Your task to perform on an android device: turn on translation in the chrome app Image 0: 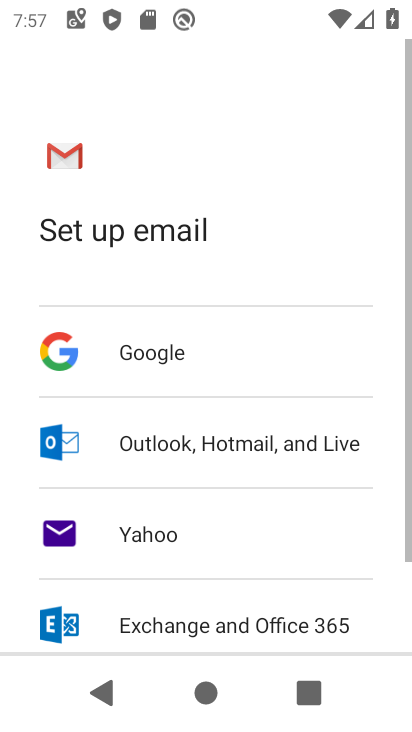
Step 0: press home button
Your task to perform on an android device: turn on translation in the chrome app Image 1: 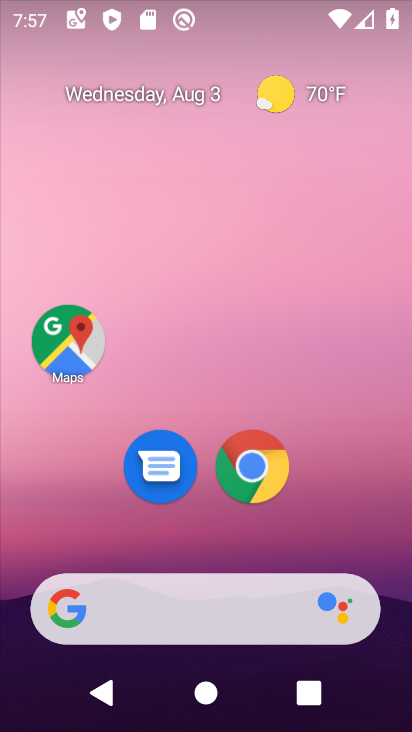
Step 1: drag from (336, 485) to (339, 37)
Your task to perform on an android device: turn on translation in the chrome app Image 2: 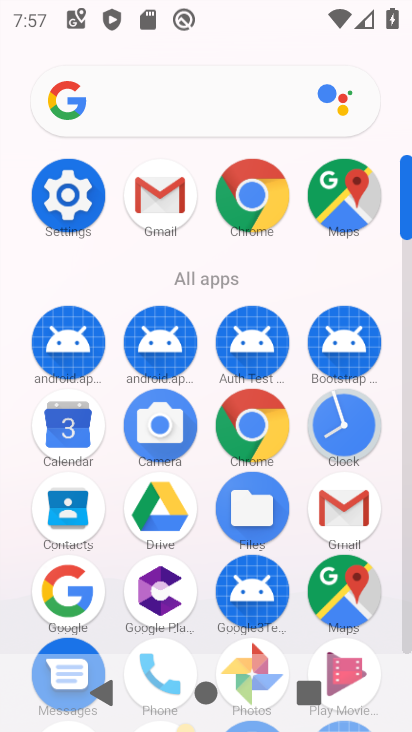
Step 2: click (260, 434)
Your task to perform on an android device: turn on translation in the chrome app Image 3: 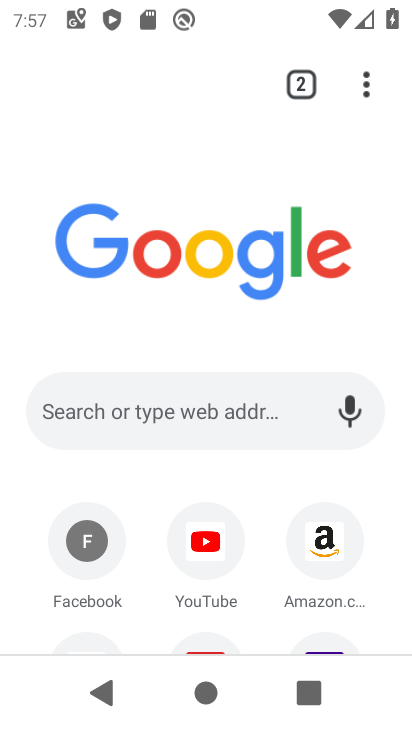
Step 3: drag from (365, 74) to (253, 530)
Your task to perform on an android device: turn on translation in the chrome app Image 4: 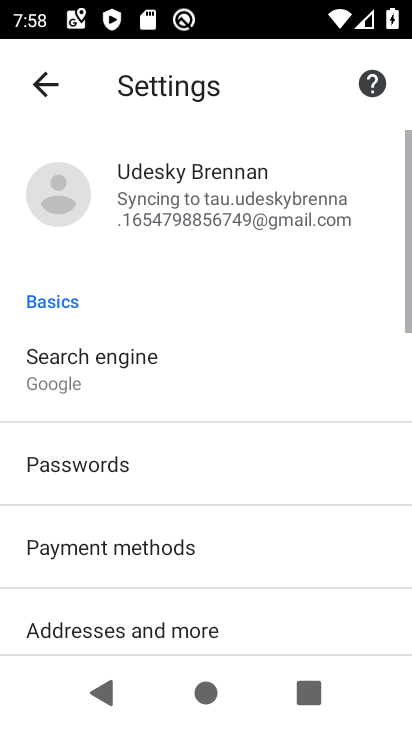
Step 4: drag from (217, 523) to (261, 95)
Your task to perform on an android device: turn on translation in the chrome app Image 5: 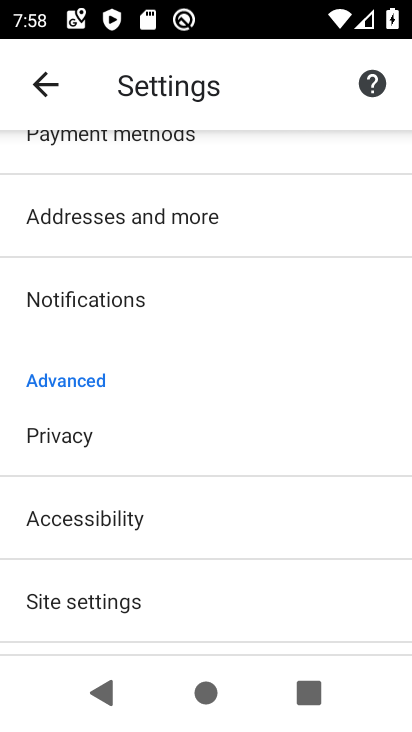
Step 5: drag from (268, 577) to (327, 79)
Your task to perform on an android device: turn on translation in the chrome app Image 6: 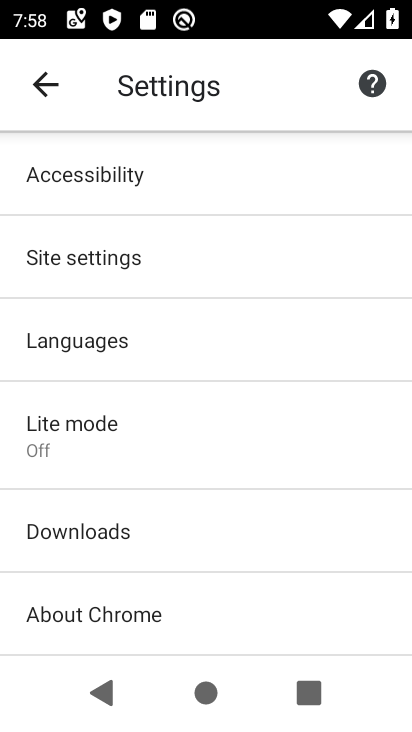
Step 6: click (153, 345)
Your task to perform on an android device: turn on translation in the chrome app Image 7: 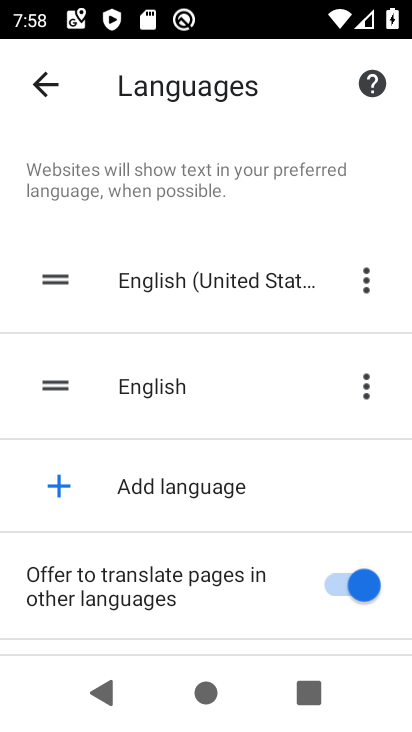
Step 7: task complete